Your task to perform on an android device: Add usb-c to usb-b to the cart on costco.com, then select checkout. Image 0: 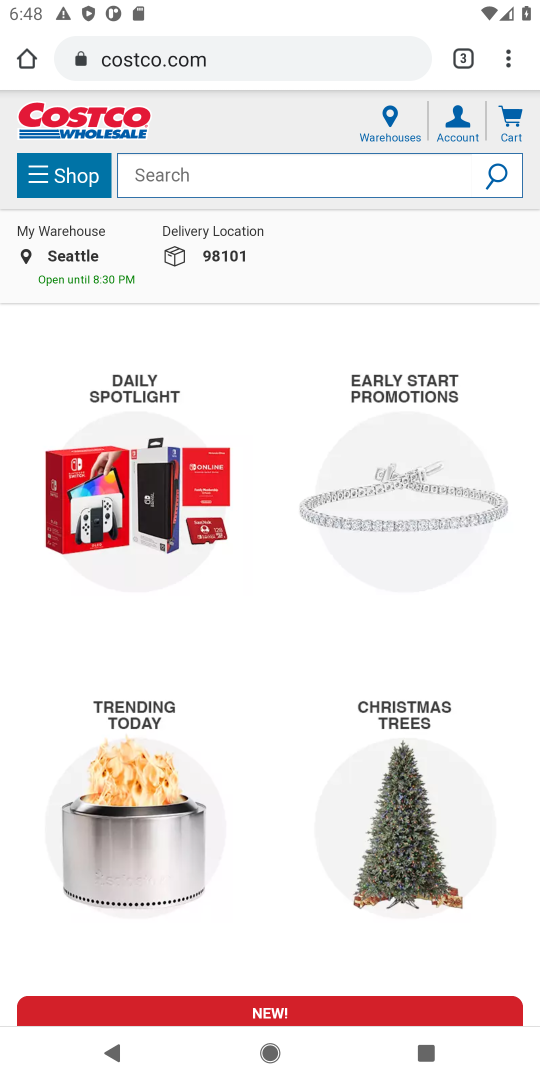
Step 0: task complete